Your task to perform on an android device: clear all cookies in the chrome app Image 0: 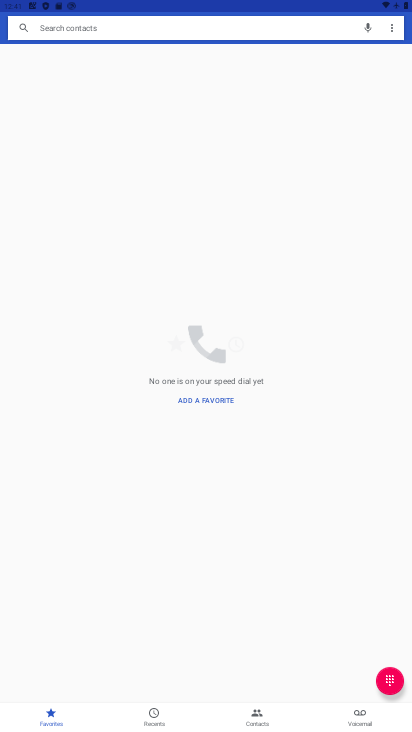
Step 0: press home button
Your task to perform on an android device: clear all cookies in the chrome app Image 1: 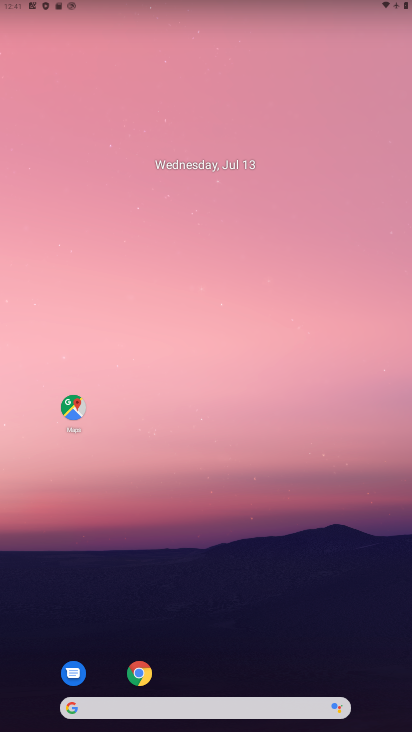
Step 1: click (141, 702)
Your task to perform on an android device: clear all cookies in the chrome app Image 2: 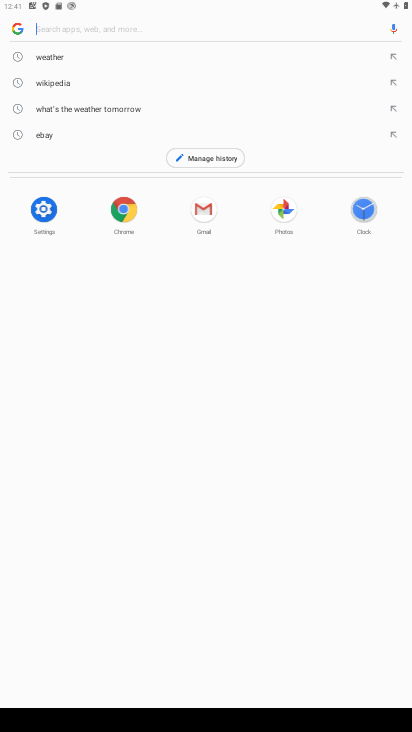
Step 2: press back button
Your task to perform on an android device: clear all cookies in the chrome app Image 3: 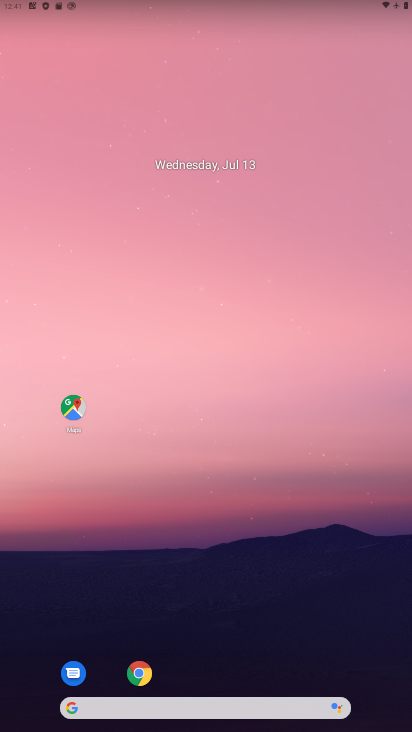
Step 3: click (139, 666)
Your task to perform on an android device: clear all cookies in the chrome app Image 4: 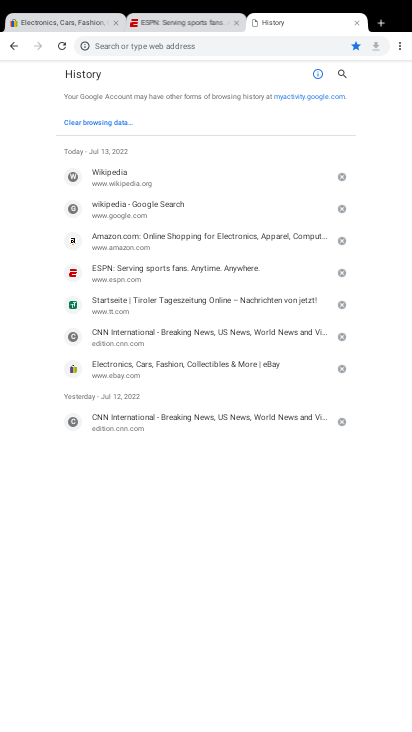
Step 4: click (109, 126)
Your task to perform on an android device: clear all cookies in the chrome app Image 5: 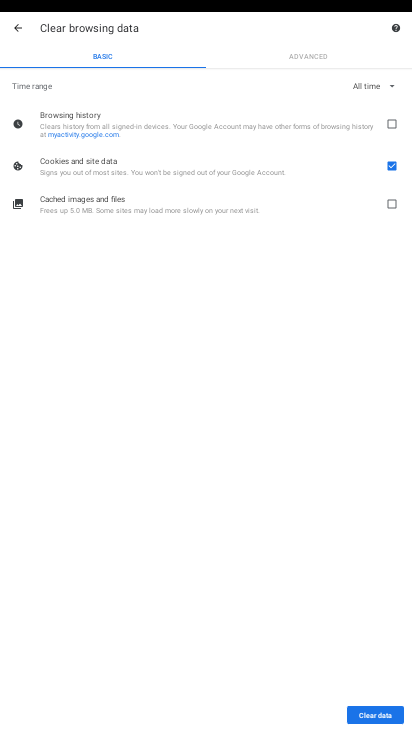
Step 5: click (357, 712)
Your task to perform on an android device: clear all cookies in the chrome app Image 6: 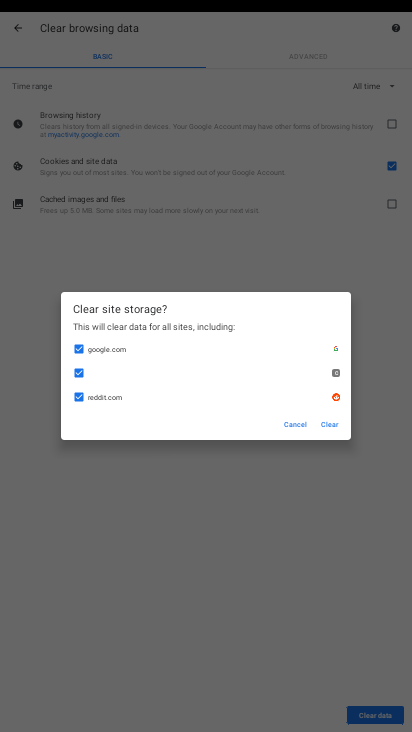
Step 6: click (329, 429)
Your task to perform on an android device: clear all cookies in the chrome app Image 7: 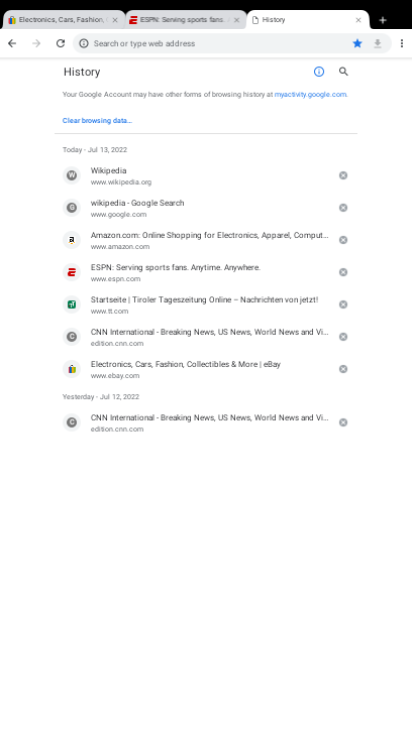
Step 7: task complete